Your task to perform on an android device: Is it going to rain today? Image 0: 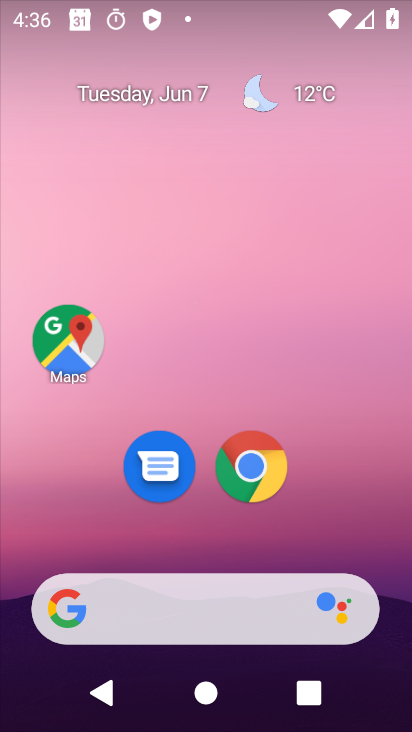
Step 0: click (202, 627)
Your task to perform on an android device: Is it going to rain today? Image 1: 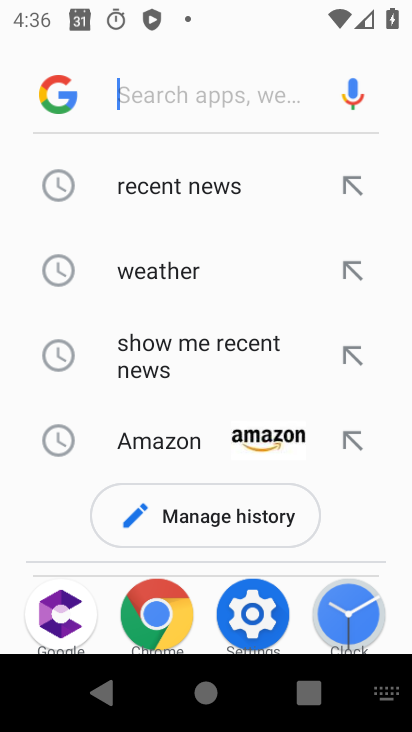
Step 1: type "Is it going to rain today?"
Your task to perform on an android device: Is it going to rain today? Image 2: 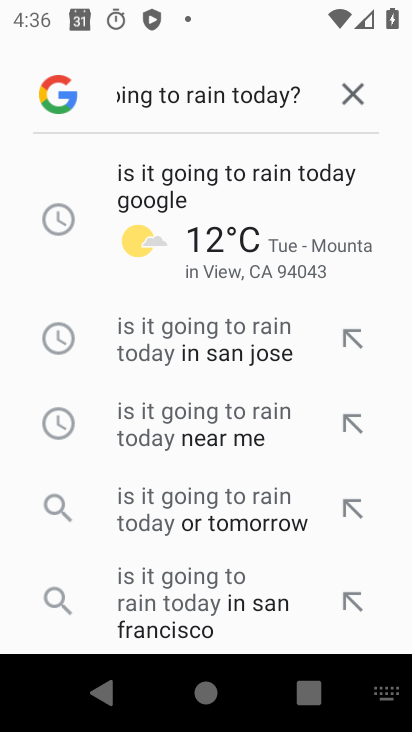
Step 2: click (308, 175)
Your task to perform on an android device: Is it going to rain today? Image 3: 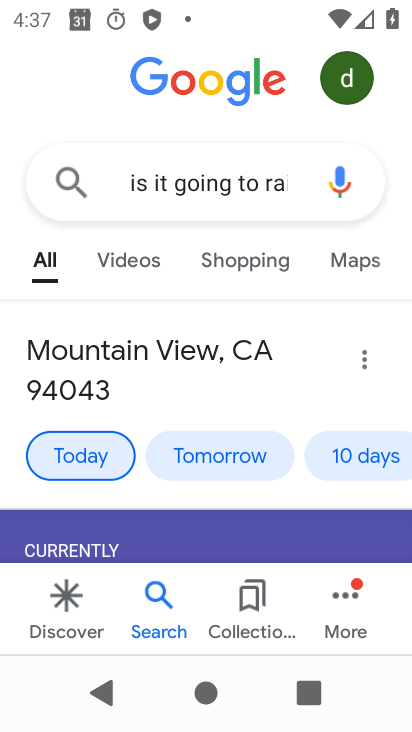
Step 3: task complete